Your task to perform on an android device: toggle show notifications on the lock screen Image 0: 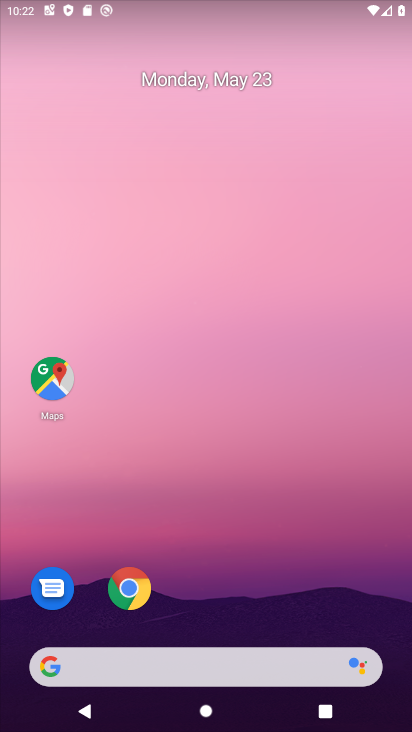
Step 0: drag from (276, 573) to (292, 144)
Your task to perform on an android device: toggle show notifications on the lock screen Image 1: 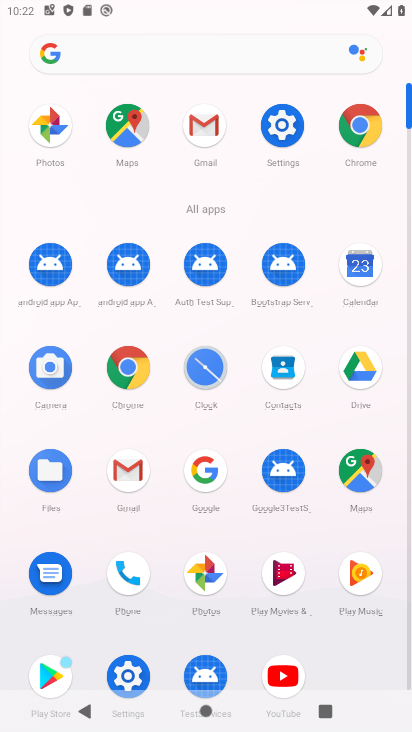
Step 1: click (278, 129)
Your task to perform on an android device: toggle show notifications on the lock screen Image 2: 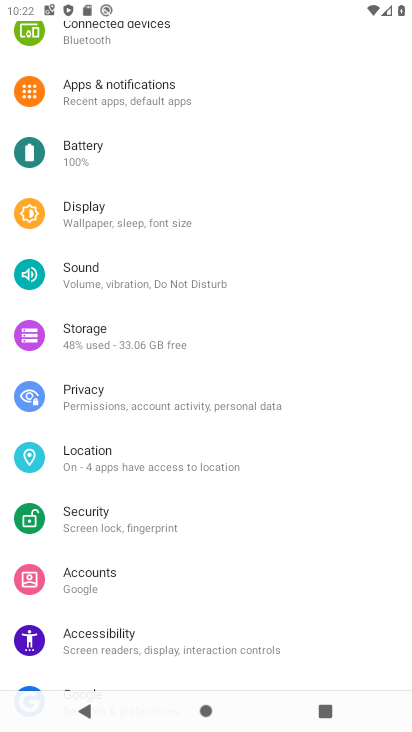
Step 2: drag from (195, 540) to (260, 719)
Your task to perform on an android device: toggle show notifications on the lock screen Image 3: 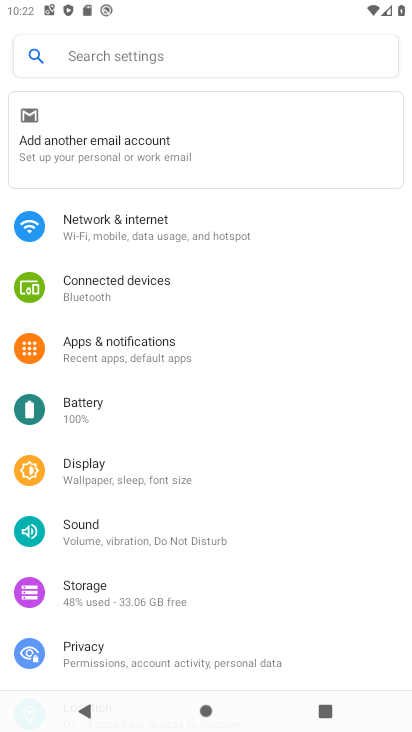
Step 3: click (163, 340)
Your task to perform on an android device: toggle show notifications on the lock screen Image 4: 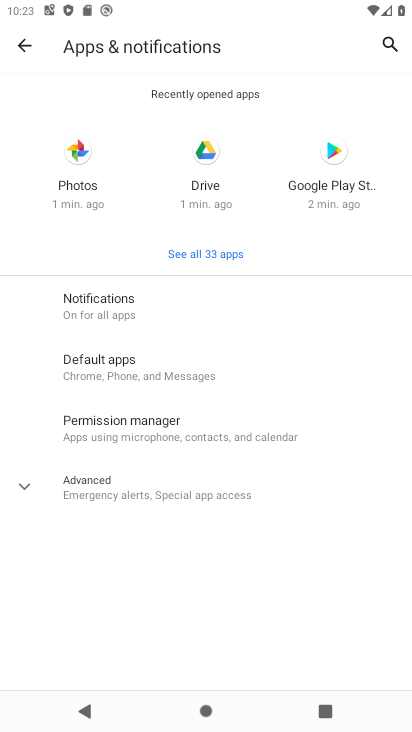
Step 4: click (109, 302)
Your task to perform on an android device: toggle show notifications on the lock screen Image 5: 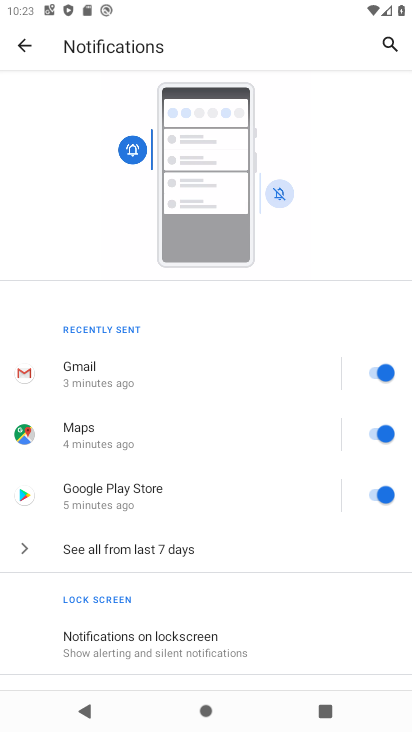
Step 5: drag from (198, 628) to (232, 334)
Your task to perform on an android device: toggle show notifications on the lock screen Image 6: 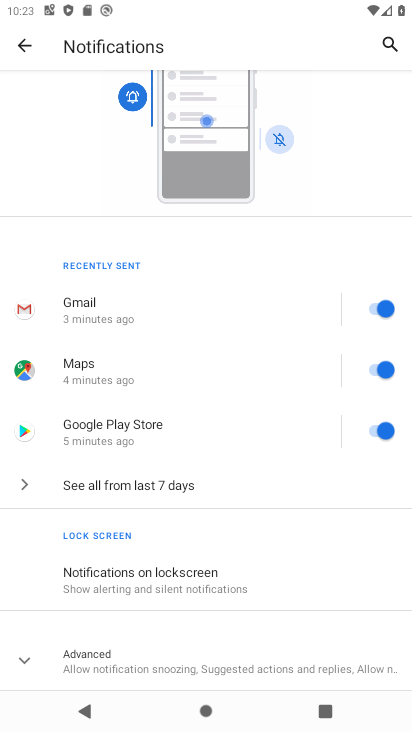
Step 6: click (158, 578)
Your task to perform on an android device: toggle show notifications on the lock screen Image 7: 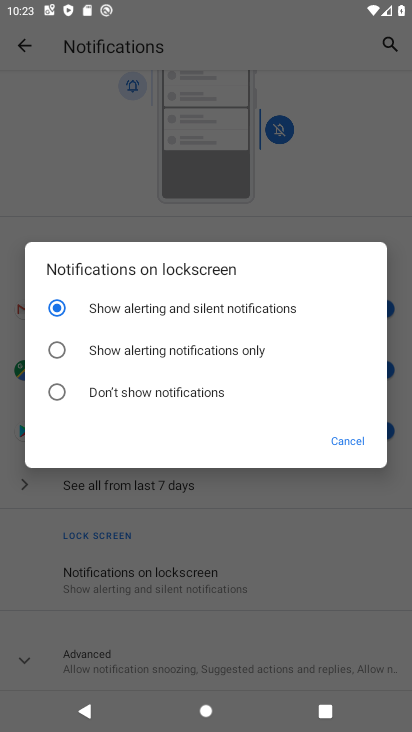
Step 7: click (209, 358)
Your task to perform on an android device: toggle show notifications on the lock screen Image 8: 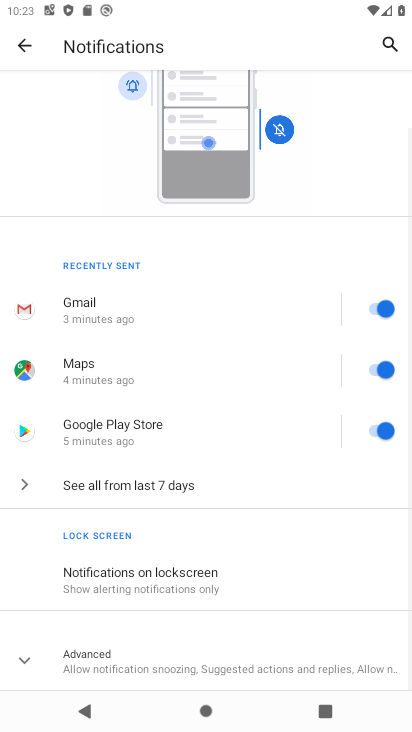
Step 8: task complete